Your task to perform on an android device: Search for a new eyeshadow on Sephora Image 0: 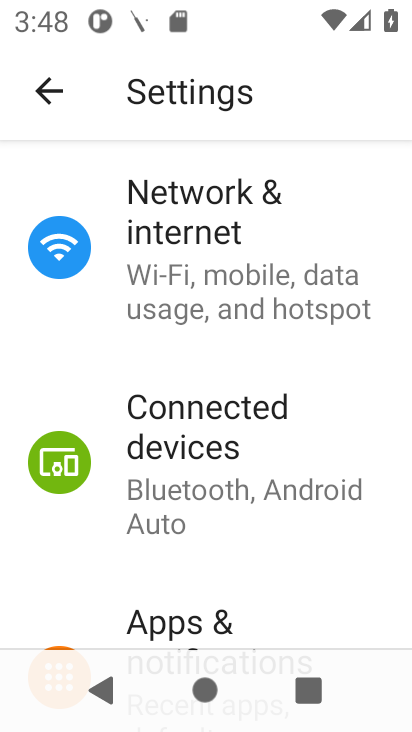
Step 0: press home button
Your task to perform on an android device: Search for a new eyeshadow on Sephora Image 1: 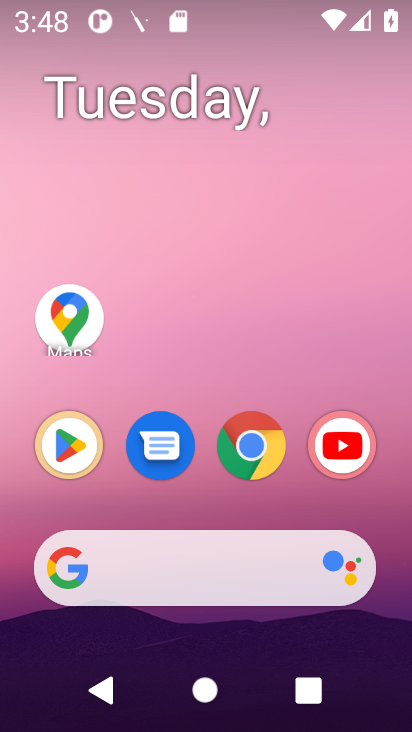
Step 1: drag from (184, 531) to (183, 151)
Your task to perform on an android device: Search for a new eyeshadow on Sephora Image 2: 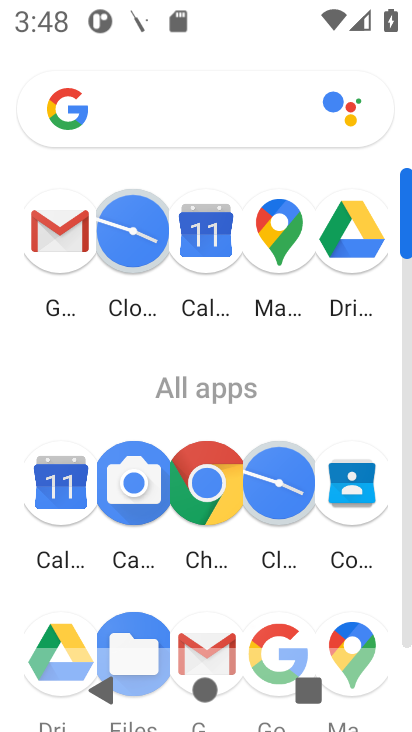
Step 2: click (270, 641)
Your task to perform on an android device: Search for a new eyeshadow on Sephora Image 3: 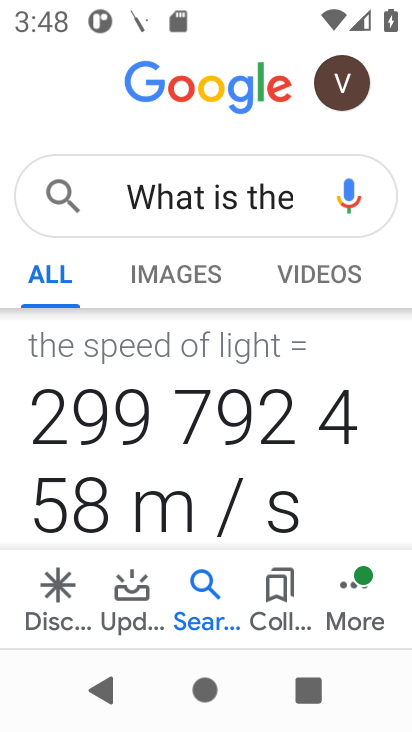
Step 3: click (163, 196)
Your task to perform on an android device: Search for a new eyeshadow on Sephora Image 4: 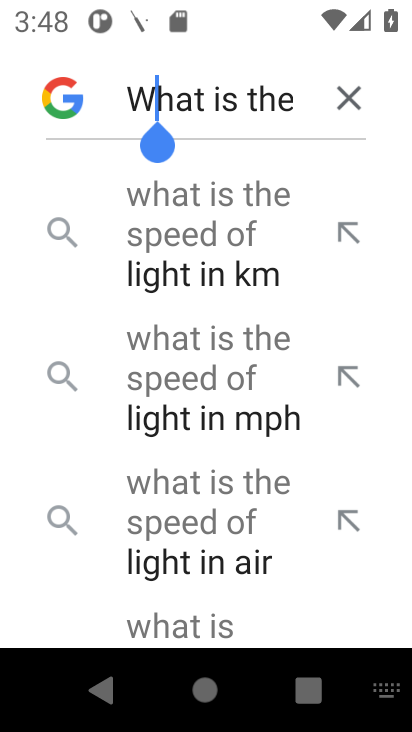
Step 4: click (349, 102)
Your task to perform on an android device: Search for a new eyeshadow on Sephora Image 5: 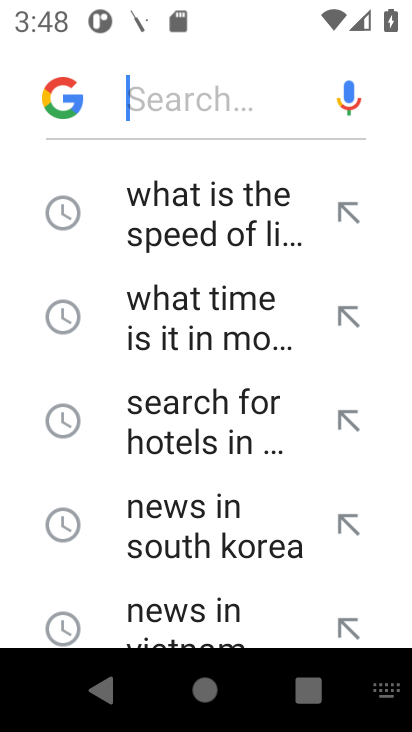
Step 5: type "Search for a new eyeshadow on Sephora"
Your task to perform on an android device: Search for a new eyeshadow on Sephora Image 6: 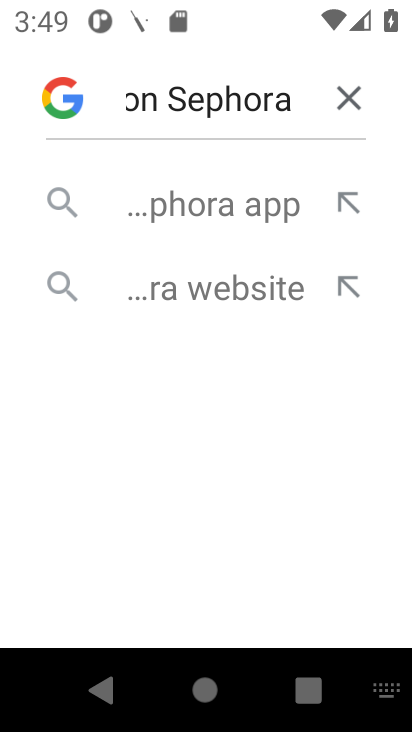
Step 6: click (171, 207)
Your task to perform on an android device: Search for a new eyeshadow on Sephora Image 7: 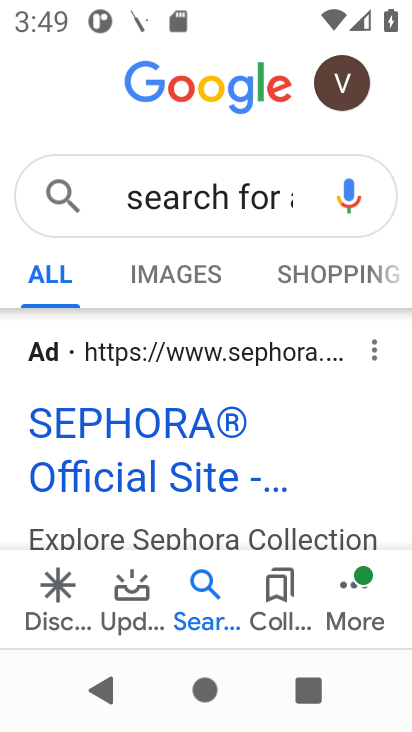
Step 7: task complete